Your task to perform on an android device: check the backup settings in the google photos Image 0: 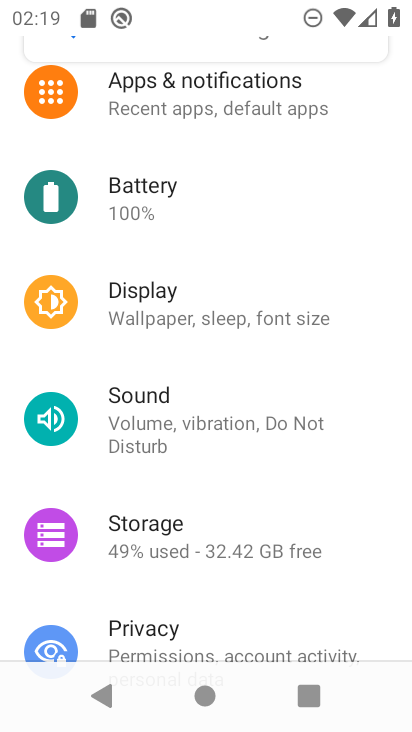
Step 0: drag from (229, 614) to (213, 272)
Your task to perform on an android device: check the backup settings in the google photos Image 1: 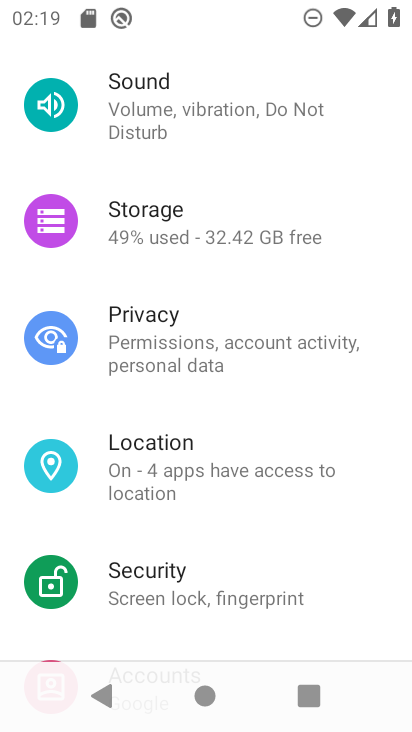
Step 1: press home button
Your task to perform on an android device: check the backup settings in the google photos Image 2: 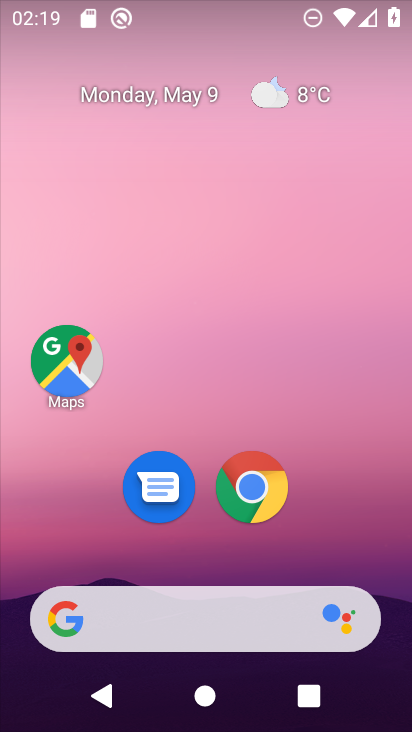
Step 2: drag from (338, 530) to (274, 0)
Your task to perform on an android device: check the backup settings in the google photos Image 3: 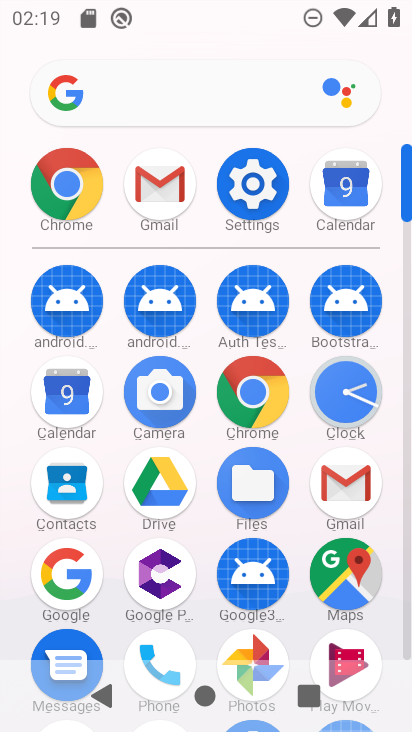
Step 3: click (243, 640)
Your task to perform on an android device: check the backup settings in the google photos Image 4: 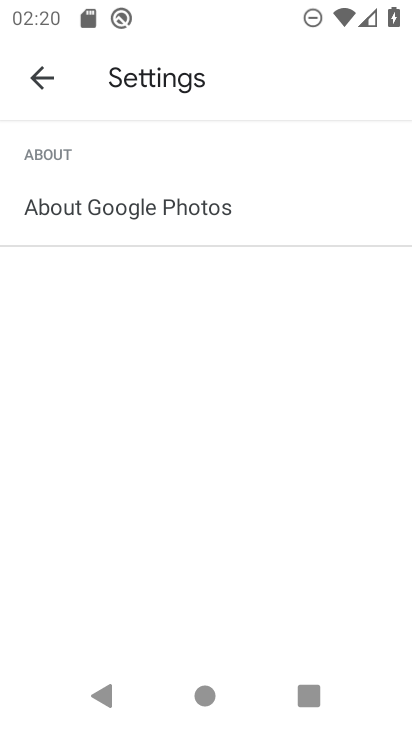
Step 4: click (32, 77)
Your task to perform on an android device: check the backup settings in the google photos Image 5: 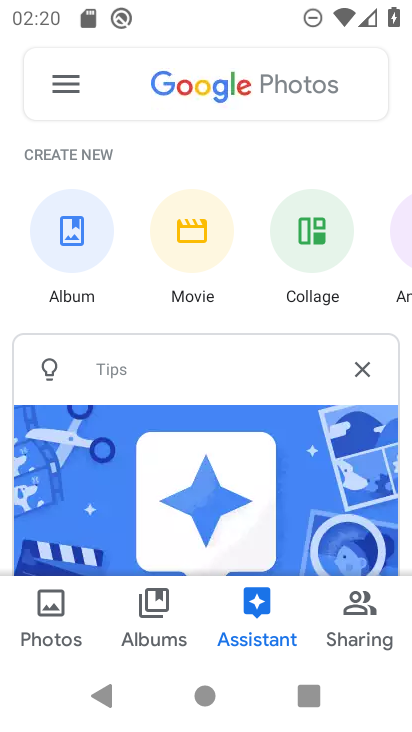
Step 5: click (48, 78)
Your task to perform on an android device: check the backup settings in the google photos Image 6: 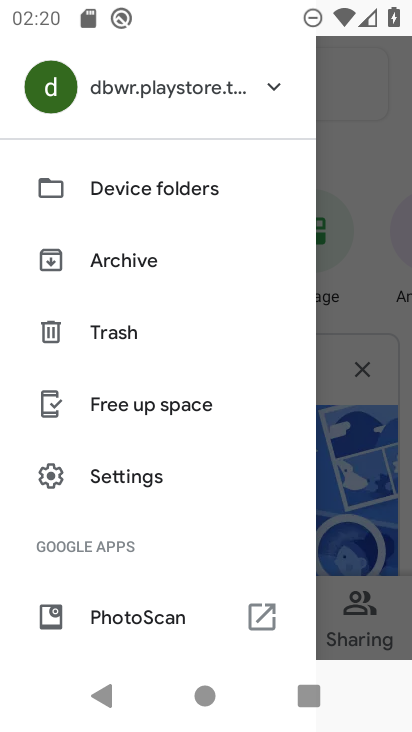
Step 6: drag from (179, 551) to (160, 44)
Your task to perform on an android device: check the backup settings in the google photos Image 7: 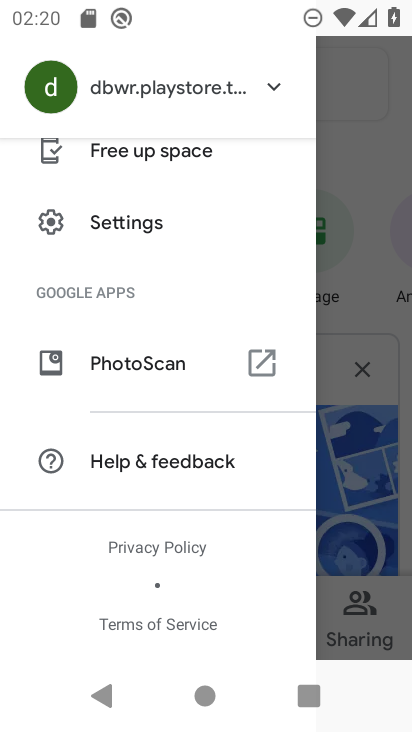
Step 7: click (125, 229)
Your task to perform on an android device: check the backup settings in the google photos Image 8: 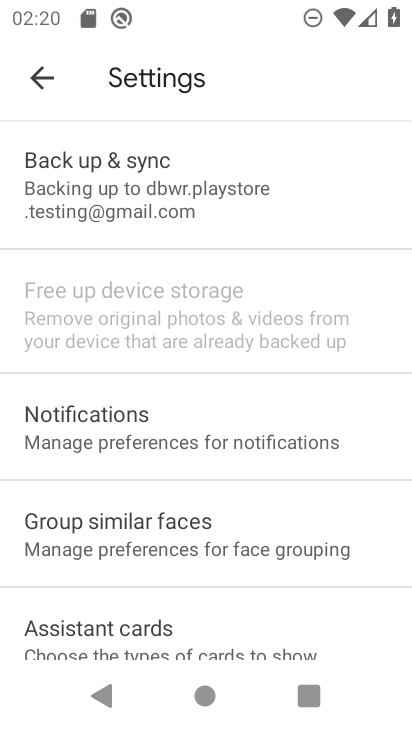
Step 8: click (126, 176)
Your task to perform on an android device: check the backup settings in the google photos Image 9: 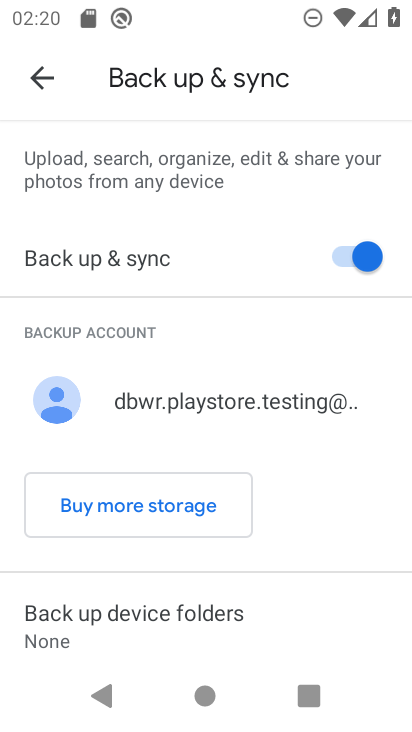
Step 9: task complete